Your task to perform on an android device: Open settings Image 0: 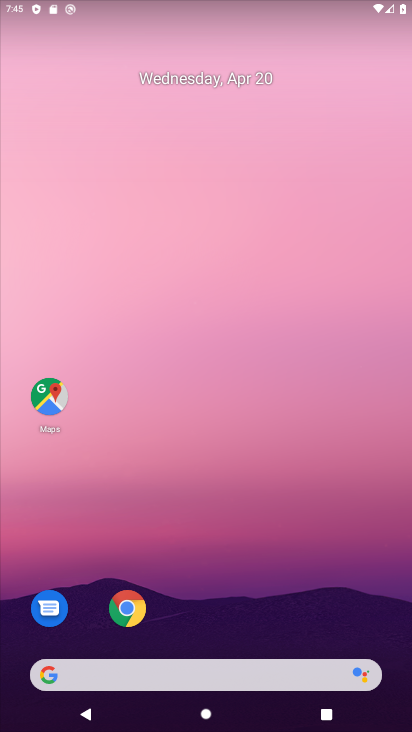
Step 0: drag from (169, 601) to (303, 4)
Your task to perform on an android device: Open settings Image 1: 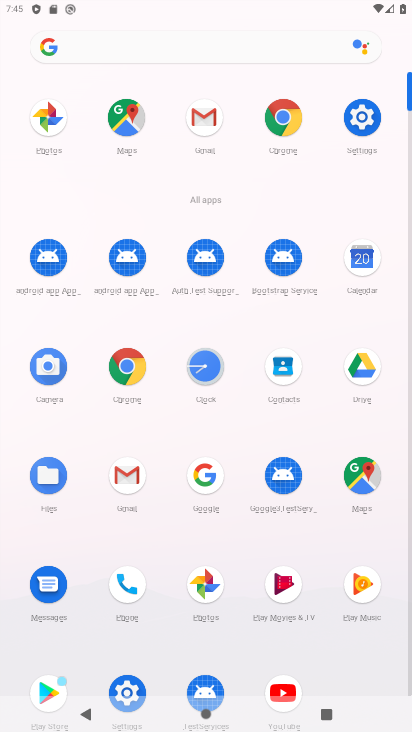
Step 1: click (368, 102)
Your task to perform on an android device: Open settings Image 2: 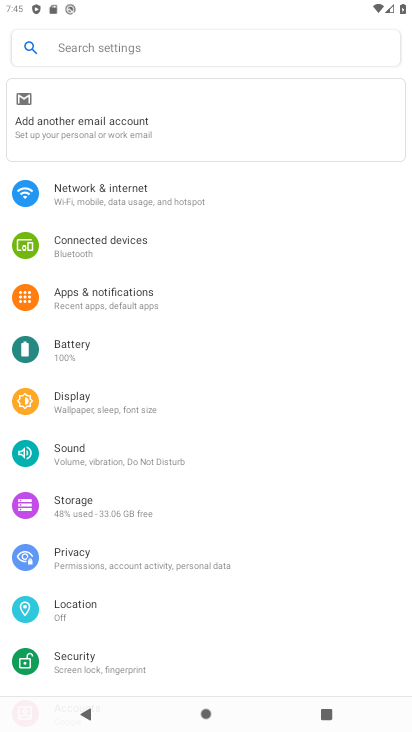
Step 2: task complete